Your task to perform on an android device: change text size in settings app Image 0: 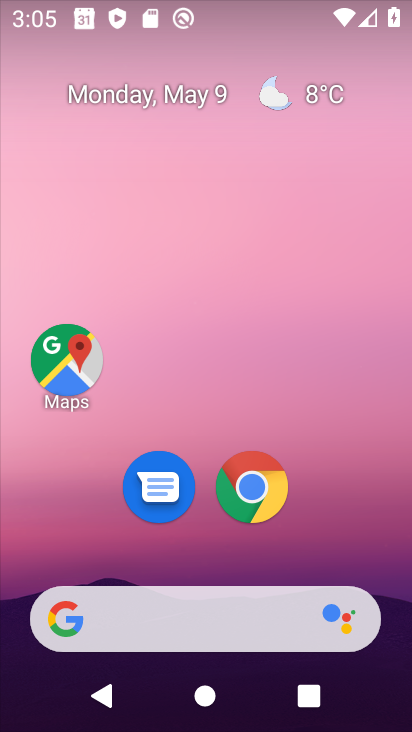
Step 0: drag from (216, 566) to (223, 128)
Your task to perform on an android device: change text size in settings app Image 1: 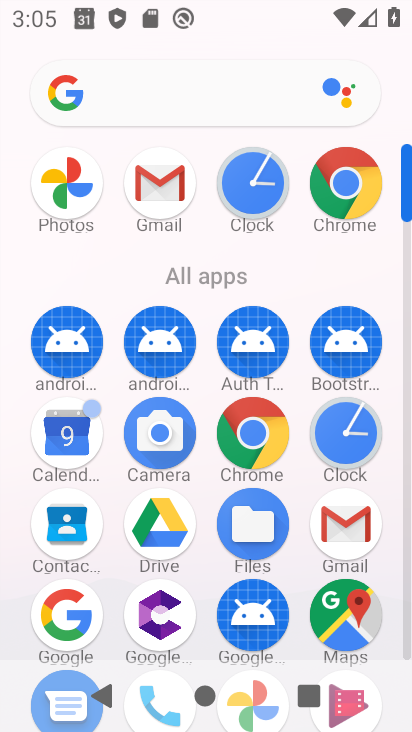
Step 1: drag from (206, 588) to (189, 379)
Your task to perform on an android device: change text size in settings app Image 2: 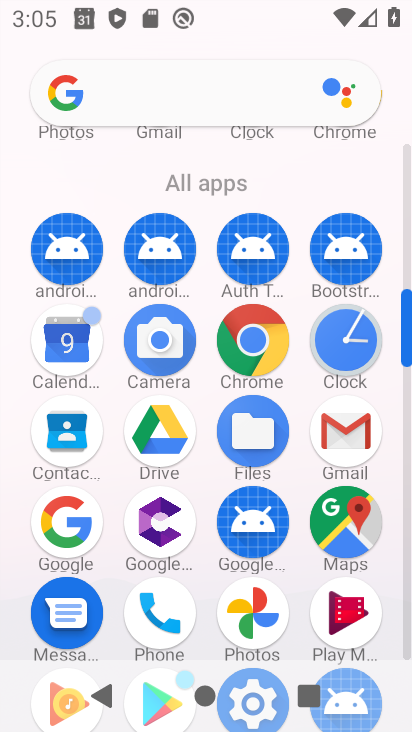
Step 2: drag from (188, 147) to (188, 99)
Your task to perform on an android device: change text size in settings app Image 3: 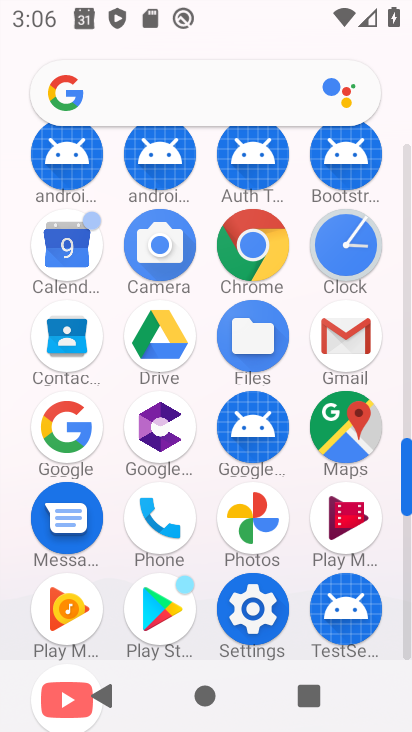
Step 3: click (248, 608)
Your task to perform on an android device: change text size in settings app Image 4: 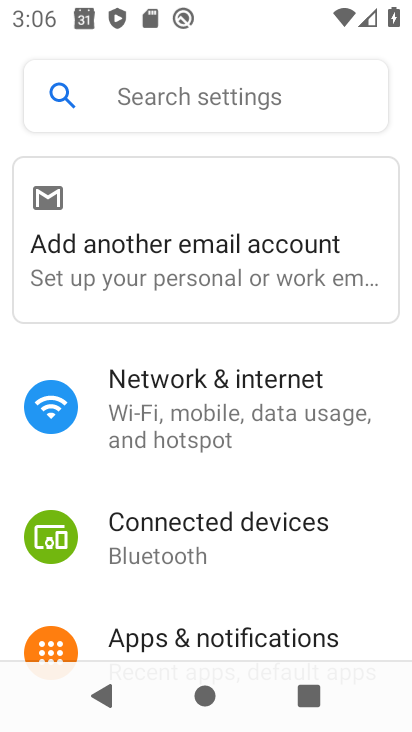
Step 4: drag from (225, 626) to (219, 144)
Your task to perform on an android device: change text size in settings app Image 5: 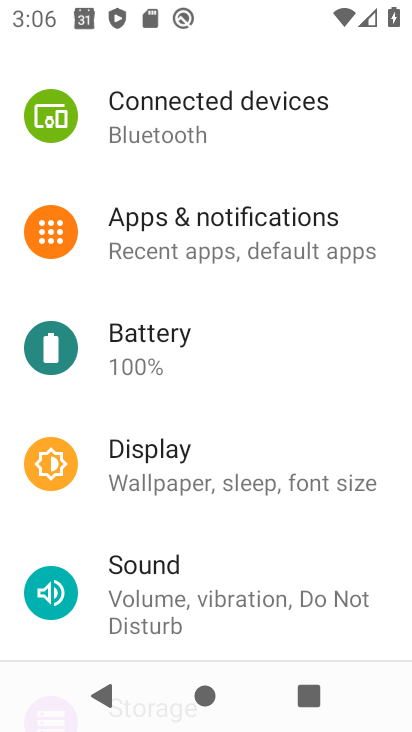
Step 5: click (202, 453)
Your task to perform on an android device: change text size in settings app Image 6: 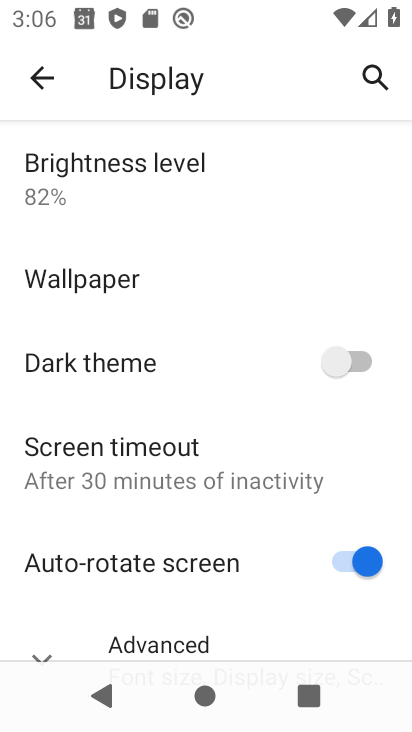
Step 6: drag from (115, 627) to (108, 395)
Your task to perform on an android device: change text size in settings app Image 7: 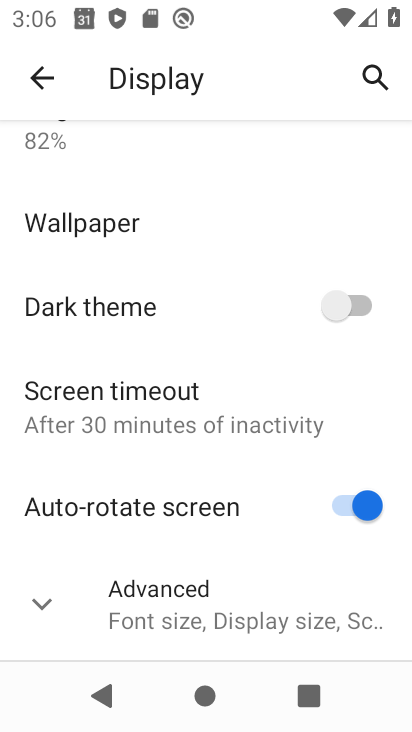
Step 7: click (43, 591)
Your task to perform on an android device: change text size in settings app Image 8: 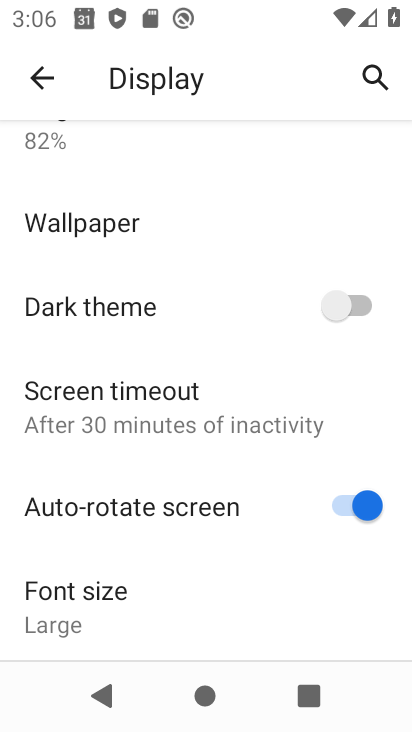
Step 8: click (141, 612)
Your task to perform on an android device: change text size in settings app Image 9: 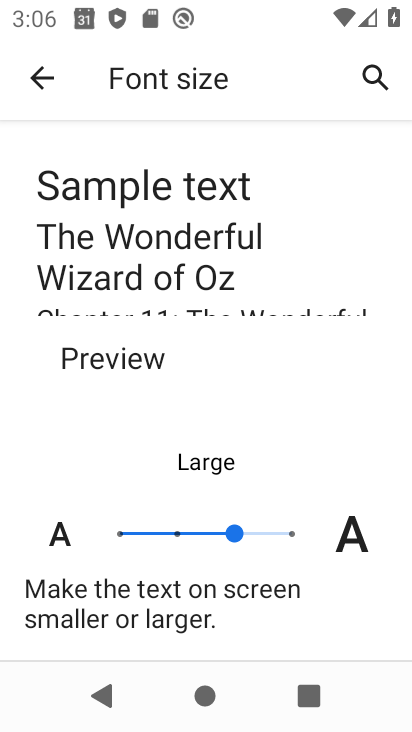
Step 9: click (128, 535)
Your task to perform on an android device: change text size in settings app Image 10: 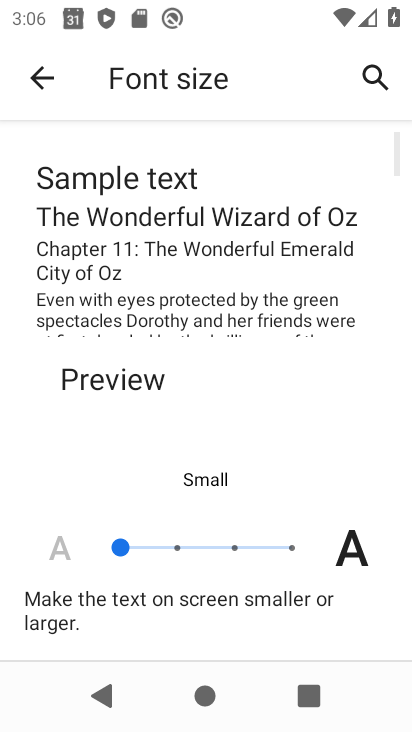
Step 10: task complete